Your task to perform on an android device: open app "Google Keep" (install if not already installed) Image 0: 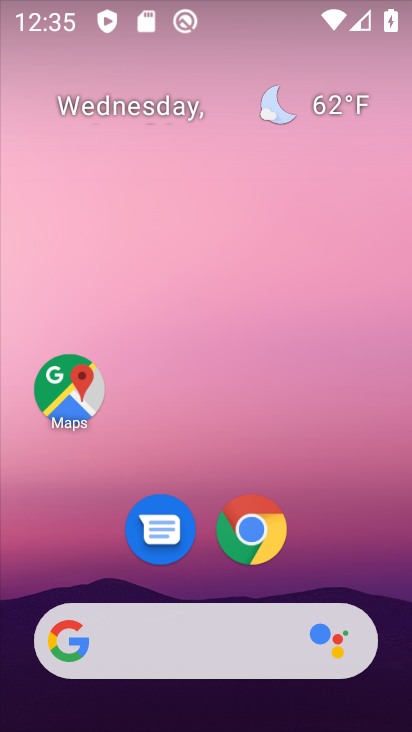
Step 0: drag from (196, 406) to (219, 96)
Your task to perform on an android device: open app "Google Keep" (install if not already installed) Image 1: 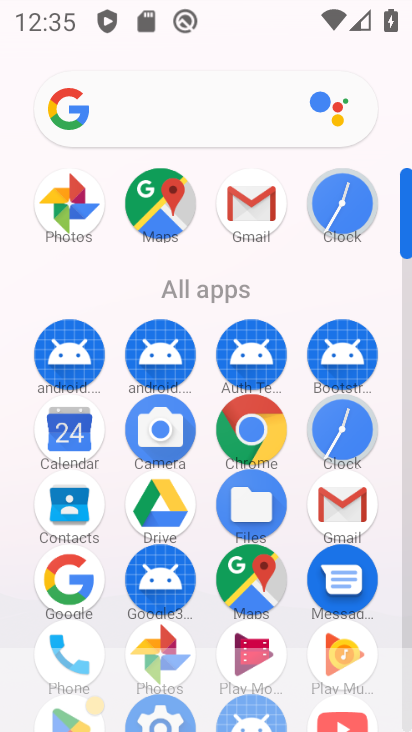
Step 1: drag from (317, 519) to (297, 138)
Your task to perform on an android device: open app "Google Keep" (install if not already installed) Image 2: 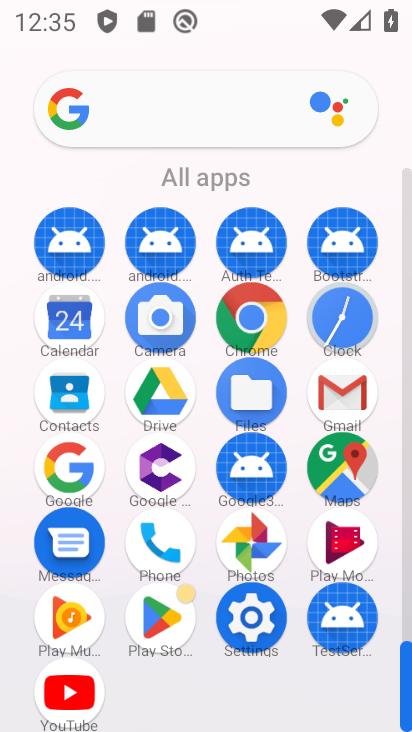
Step 2: click (143, 605)
Your task to perform on an android device: open app "Google Keep" (install if not already installed) Image 3: 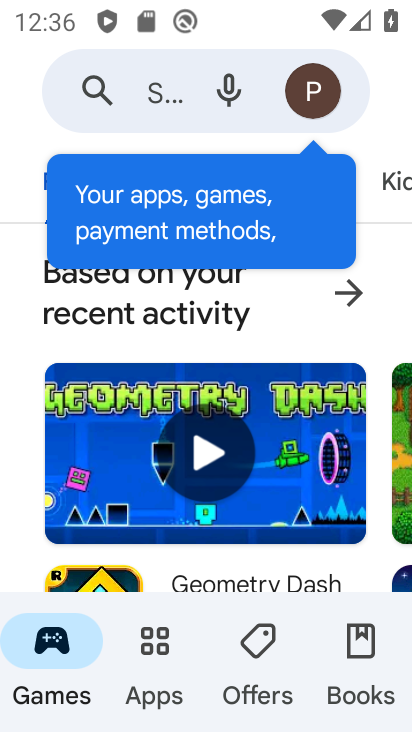
Step 3: click (123, 73)
Your task to perform on an android device: open app "Google Keep" (install if not already installed) Image 4: 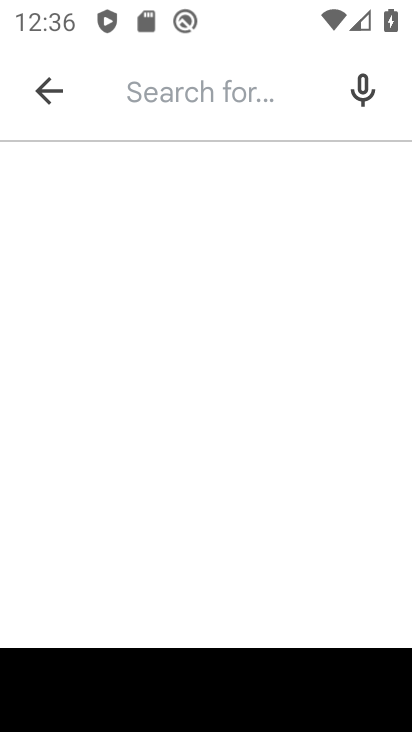
Step 4: type "Google Keep "
Your task to perform on an android device: open app "Google Keep" (install if not already installed) Image 5: 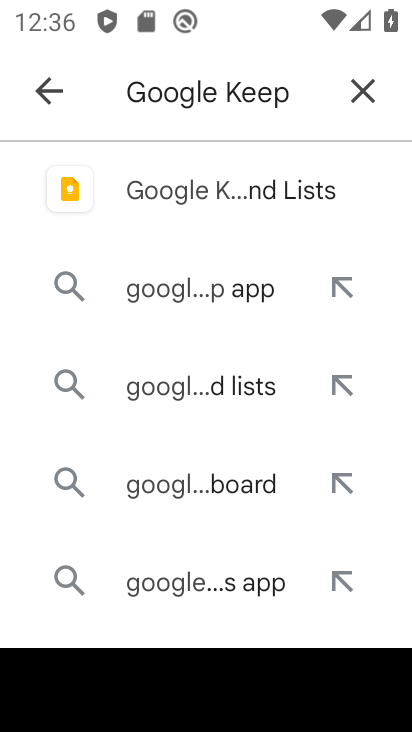
Step 5: click (183, 193)
Your task to perform on an android device: open app "Google Keep" (install if not already installed) Image 6: 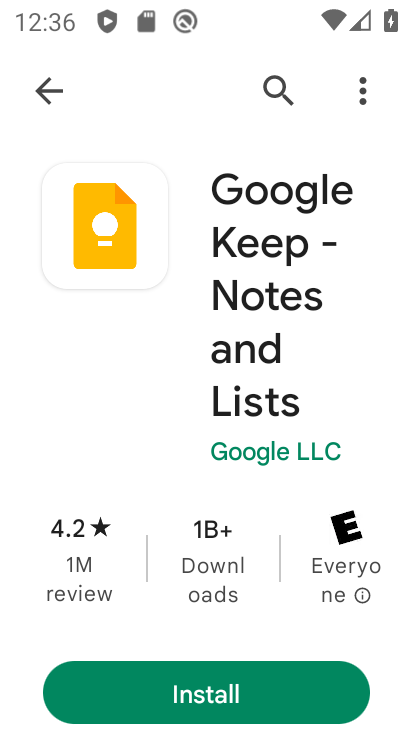
Step 6: click (200, 674)
Your task to perform on an android device: open app "Google Keep" (install if not already installed) Image 7: 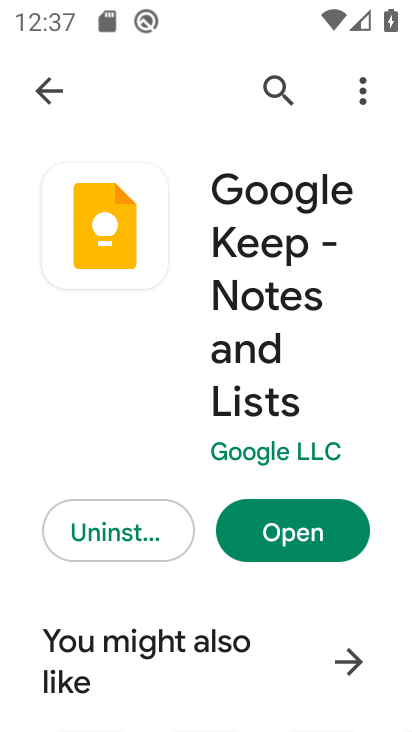
Step 7: task complete